Your task to perform on an android device: delete browsing data in the chrome app Image 0: 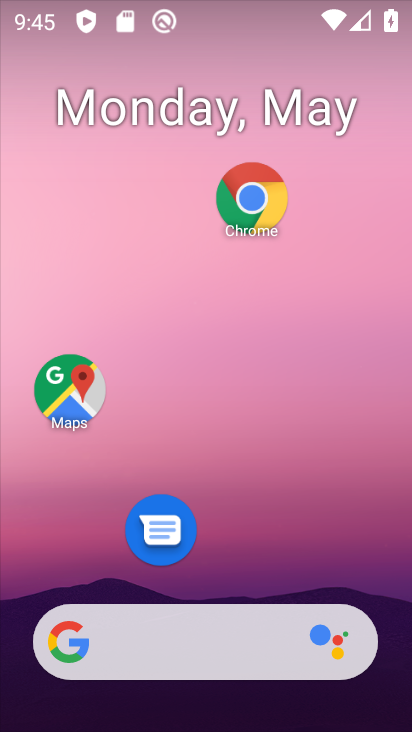
Step 0: click (239, 227)
Your task to perform on an android device: delete browsing data in the chrome app Image 1: 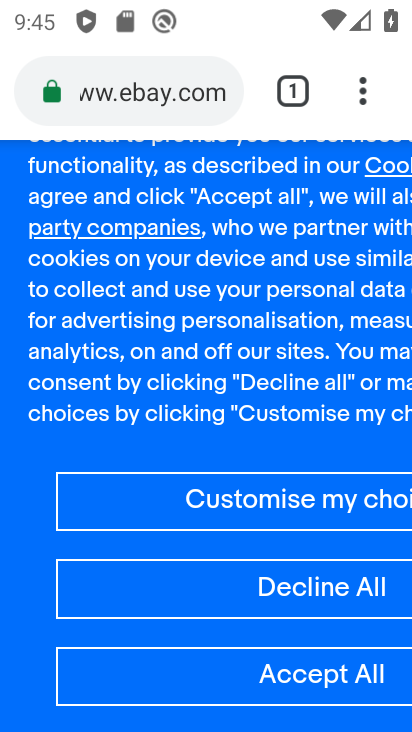
Step 1: press back button
Your task to perform on an android device: delete browsing data in the chrome app Image 2: 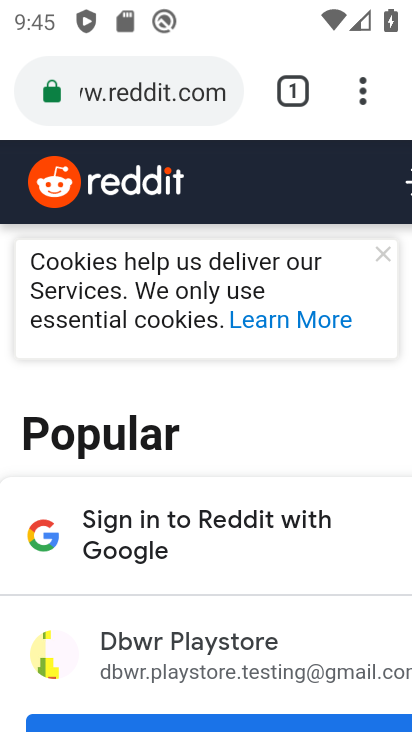
Step 2: press back button
Your task to perform on an android device: delete browsing data in the chrome app Image 3: 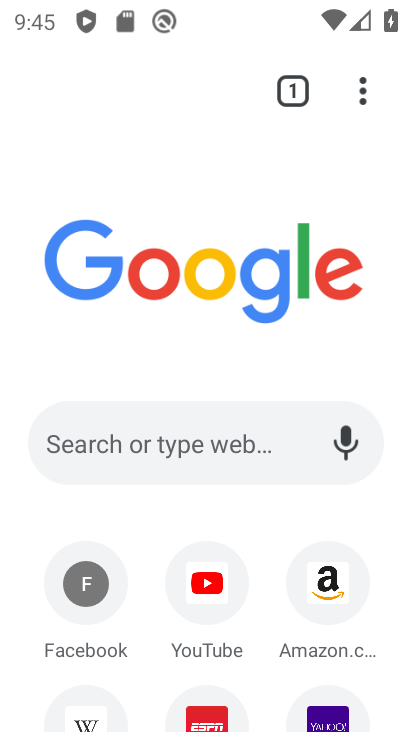
Step 3: click (212, 430)
Your task to perform on an android device: delete browsing data in the chrome app Image 4: 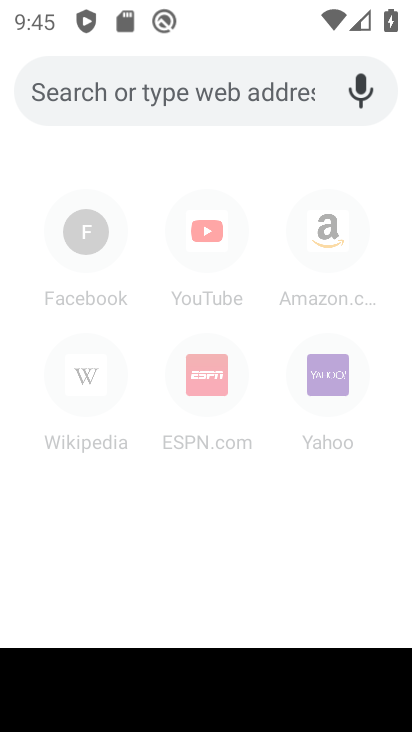
Step 4: click (217, 393)
Your task to perform on an android device: delete browsing data in the chrome app Image 5: 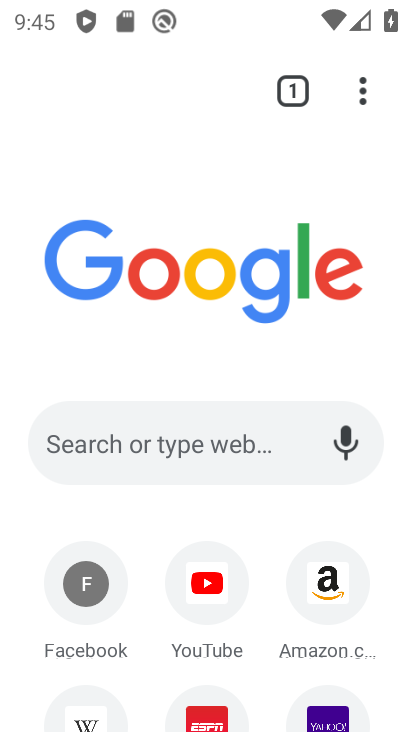
Step 5: click (196, 716)
Your task to perform on an android device: delete browsing data in the chrome app Image 6: 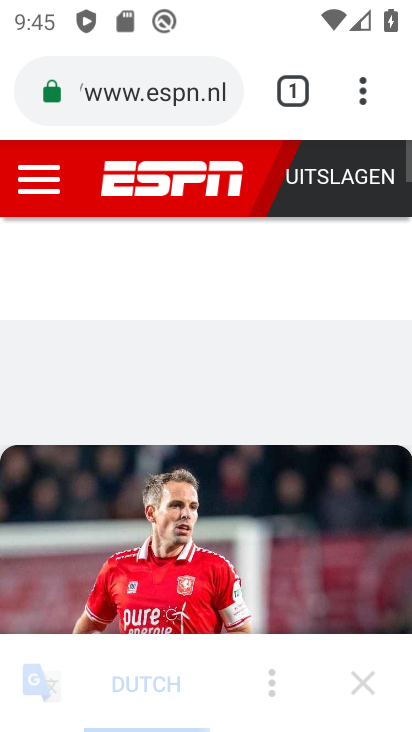
Step 6: task complete